Your task to perform on an android device: Open wifi settings Image 0: 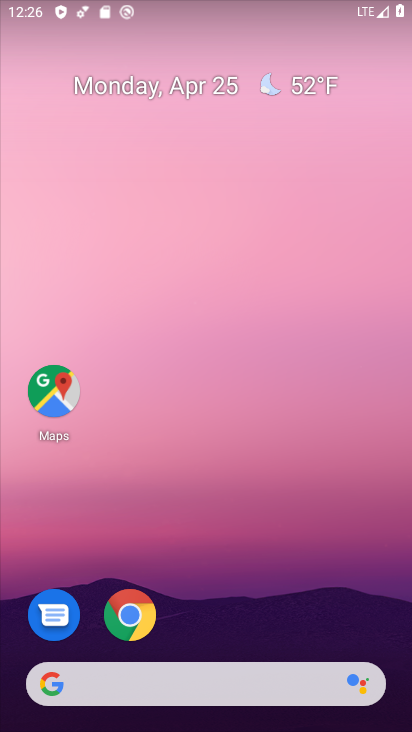
Step 0: drag from (187, 688) to (289, 169)
Your task to perform on an android device: Open wifi settings Image 1: 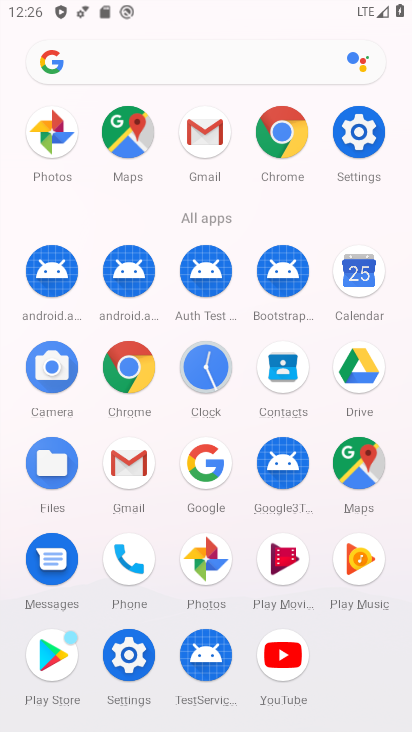
Step 1: click (360, 147)
Your task to perform on an android device: Open wifi settings Image 2: 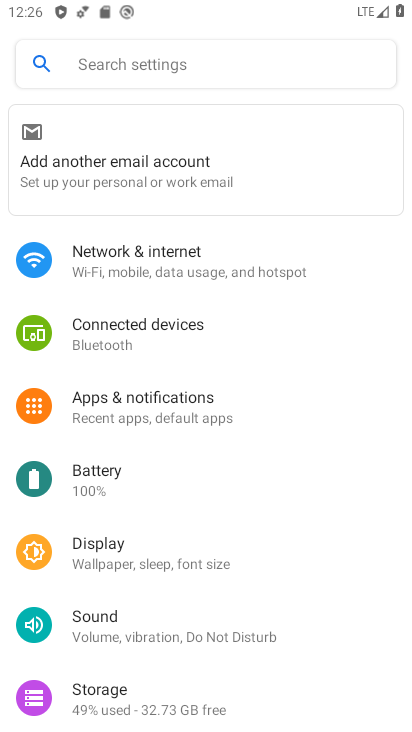
Step 2: click (157, 257)
Your task to perform on an android device: Open wifi settings Image 3: 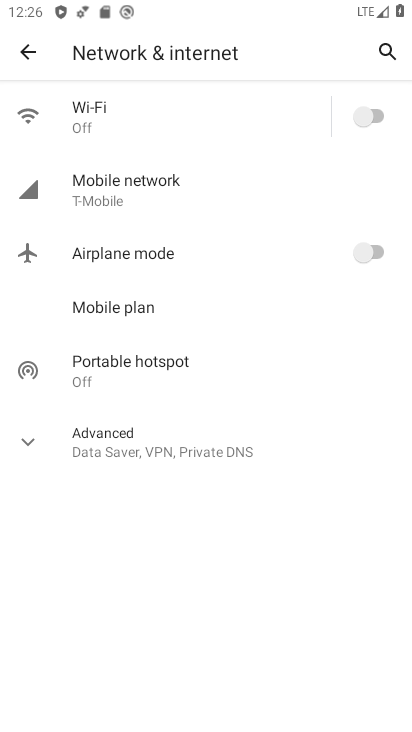
Step 3: click (170, 113)
Your task to perform on an android device: Open wifi settings Image 4: 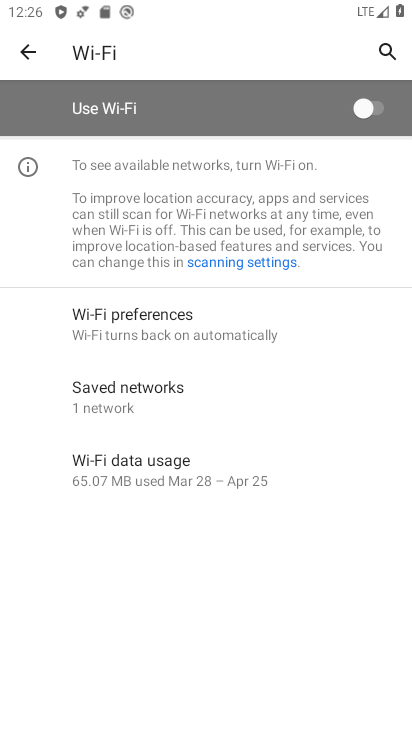
Step 4: task complete